Your task to perform on an android device: Open Amazon Image 0: 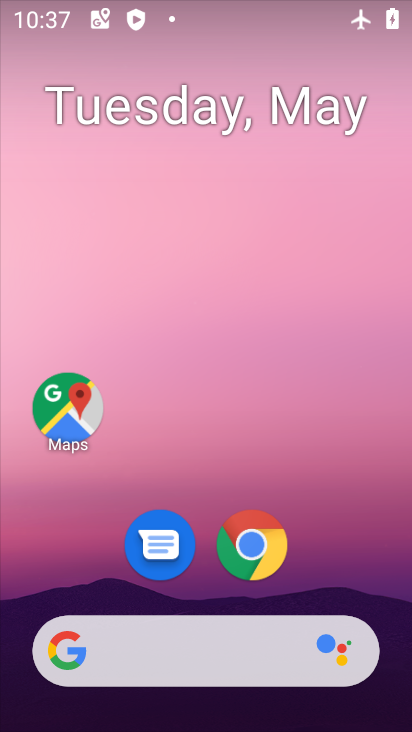
Step 0: drag from (194, 631) to (311, 31)
Your task to perform on an android device: Open Amazon Image 1: 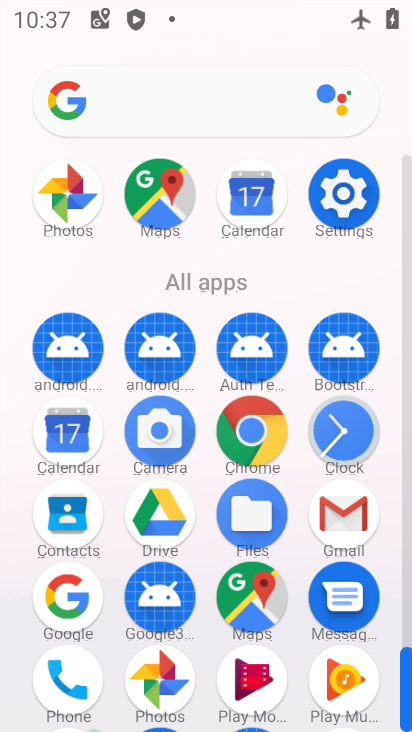
Step 1: click (282, 426)
Your task to perform on an android device: Open Amazon Image 2: 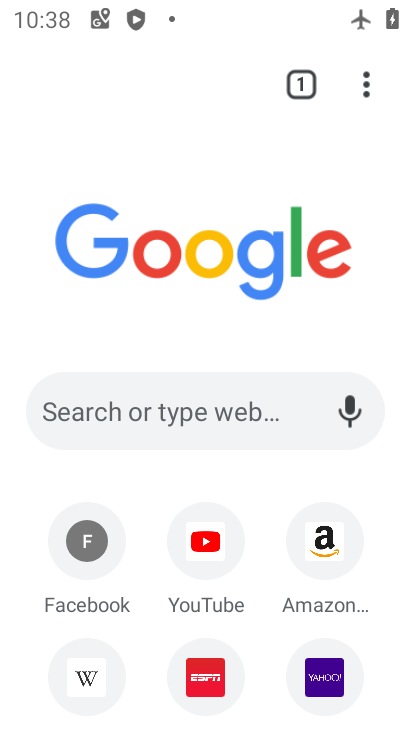
Step 2: click (324, 540)
Your task to perform on an android device: Open Amazon Image 3: 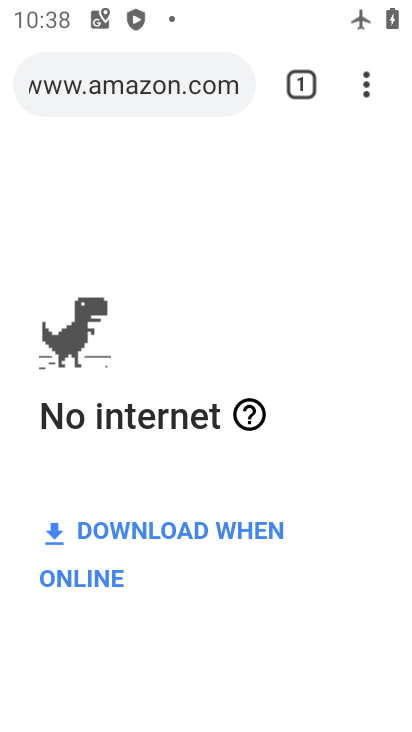
Step 3: task complete